Your task to perform on an android device: toggle location history Image 0: 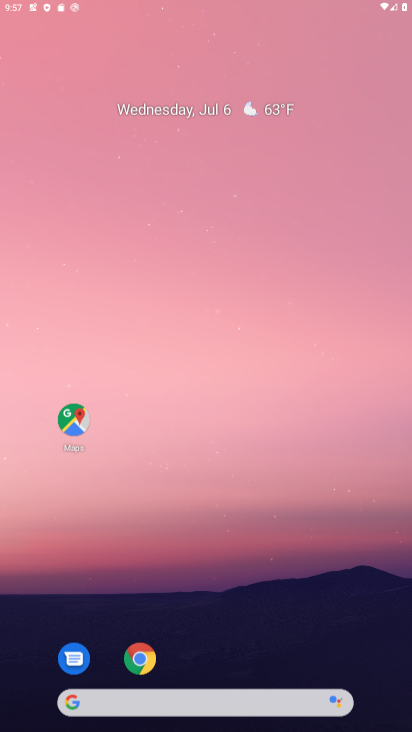
Step 0: click (383, 48)
Your task to perform on an android device: toggle location history Image 1: 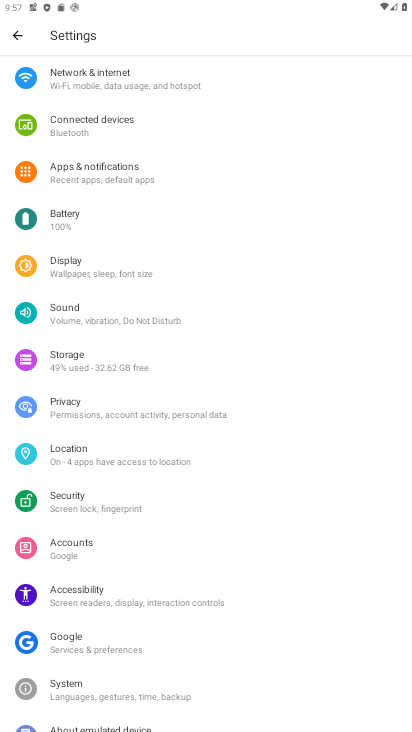
Step 1: click (101, 440)
Your task to perform on an android device: toggle location history Image 2: 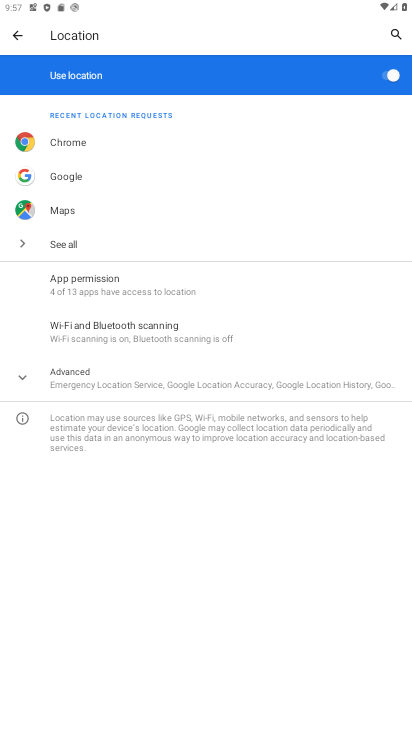
Step 2: drag from (167, 524) to (239, 294)
Your task to perform on an android device: toggle location history Image 3: 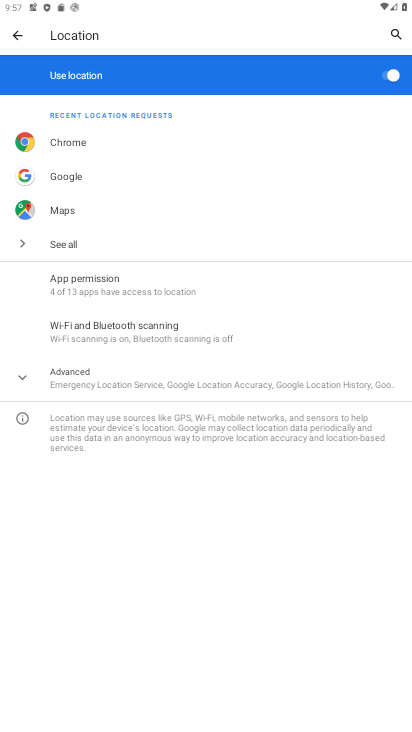
Step 3: click (98, 367)
Your task to perform on an android device: toggle location history Image 4: 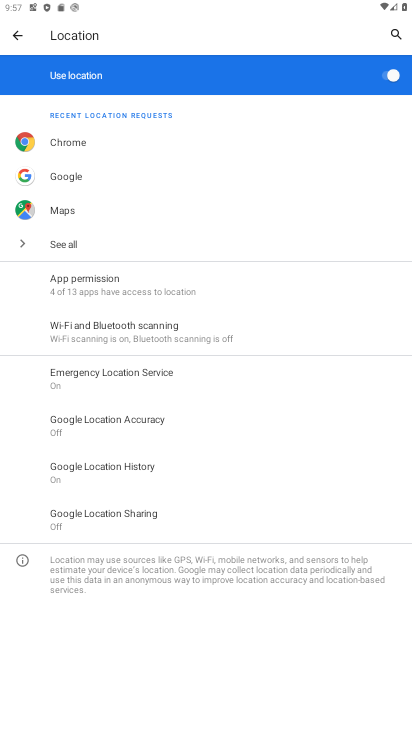
Step 4: click (133, 470)
Your task to perform on an android device: toggle location history Image 5: 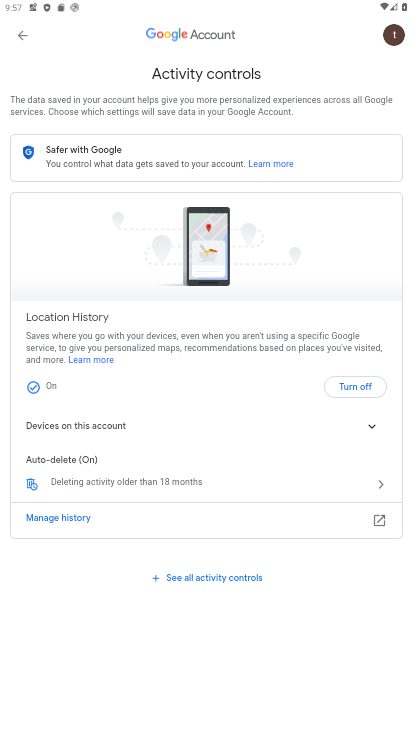
Step 5: drag from (134, 400) to (196, 231)
Your task to perform on an android device: toggle location history Image 6: 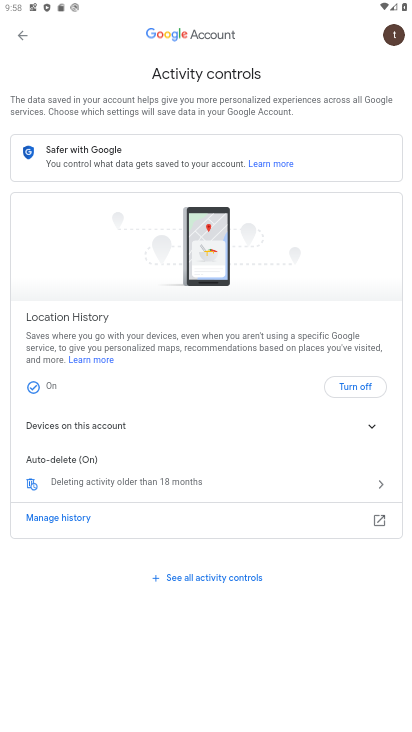
Step 6: click (351, 385)
Your task to perform on an android device: toggle location history Image 7: 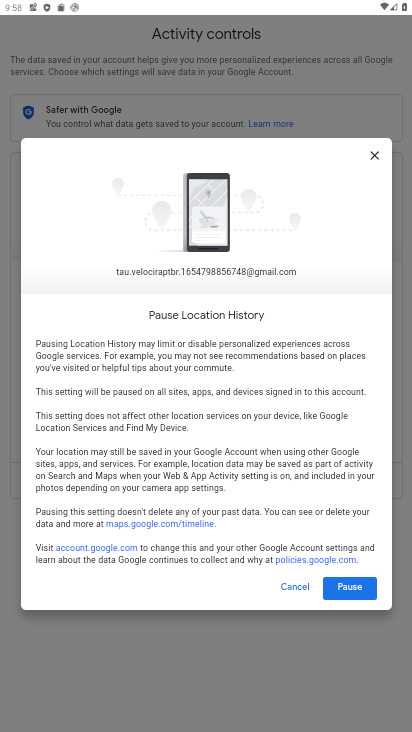
Step 7: click (348, 596)
Your task to perform on an android device: toggle location history Image 8: 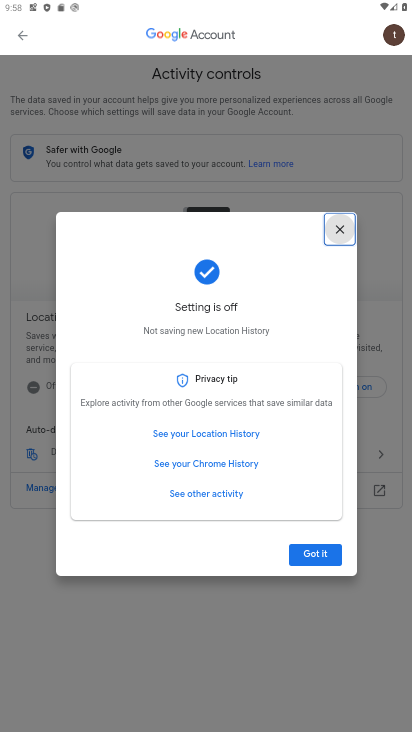
Step 8: click (321, 553)
Your task to perform on an android device: toggle location history Image 9: 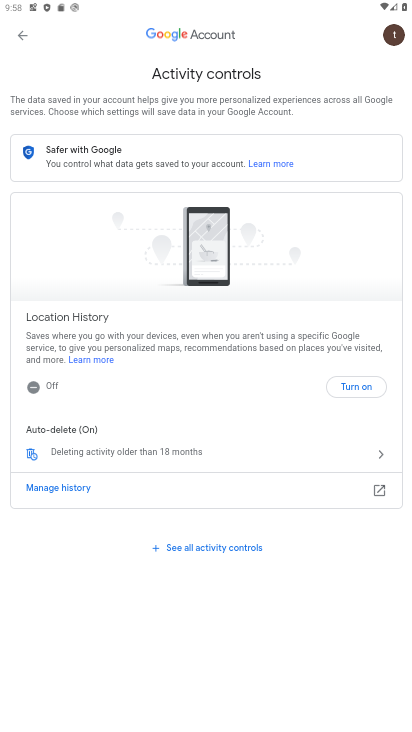
Step 9: task complete